Your task to perform on an android device: Open Google Chrome Image 0: 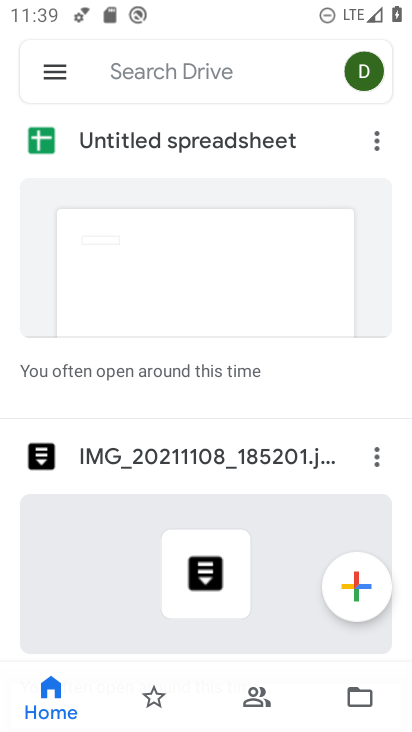
Step 0: press home button
Your task to perform on an android device: Open Google Chrome Image 1: 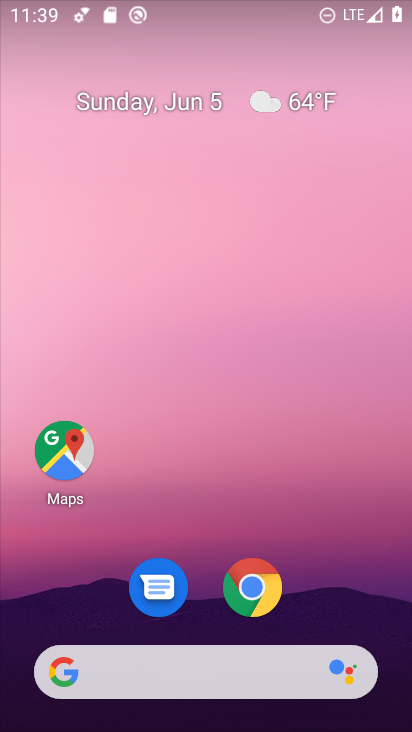
Step 1: click (253, 580)
Your task to perform on an android device: Open Google Chrome Image 2: 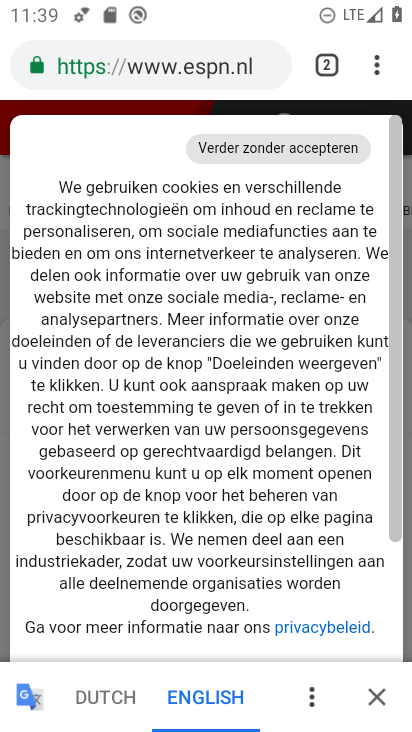
Step 2: task complete